Your task to perform on an android device: Open calendar and show me the fourth week of next month Image 0: 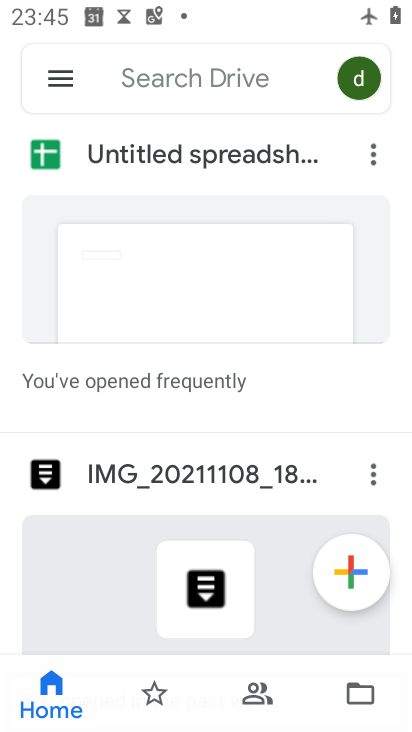
Step 0: press home button
Your task to perform on an android device: Open calendar and show me the fourth week of next month Image 1: 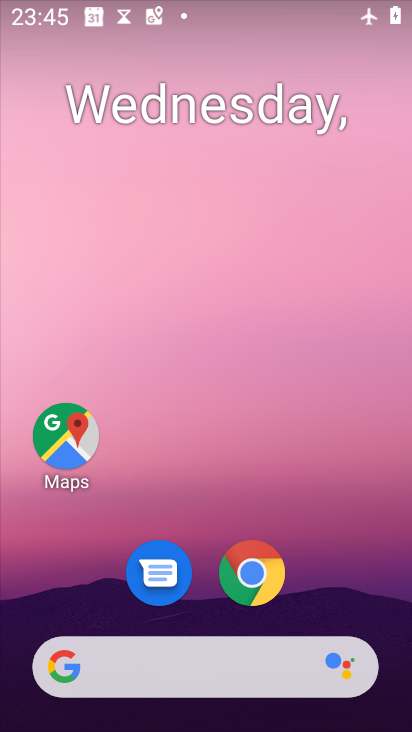
Step 1: drag from (315, 545) to (366, 247)
Your task to perform on an android device: Open calendar and show me the fourth week of next month Image 2: 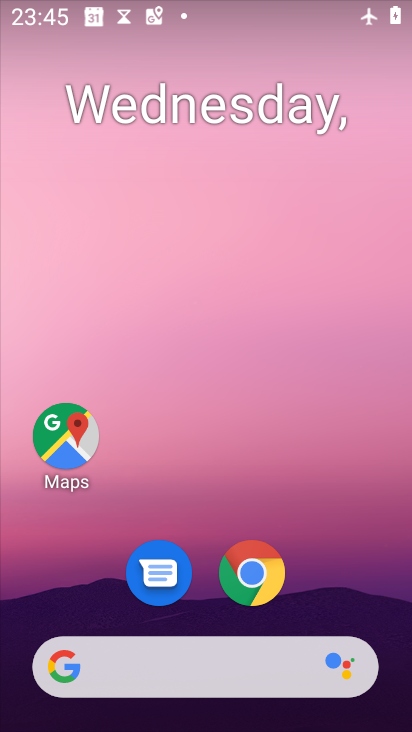
Step 2: drag from (309, 593) to (312, 235)
Your task to perform on an android device: Open calendar and show me the fourth week of next month Image 3: 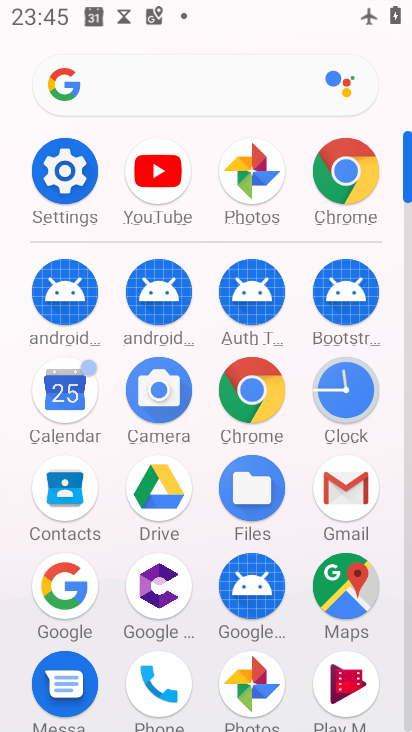
Step 3: click (51, 400)
Your task to perform on an android device: Open calendar and show me the fourth week of next month Image 4: 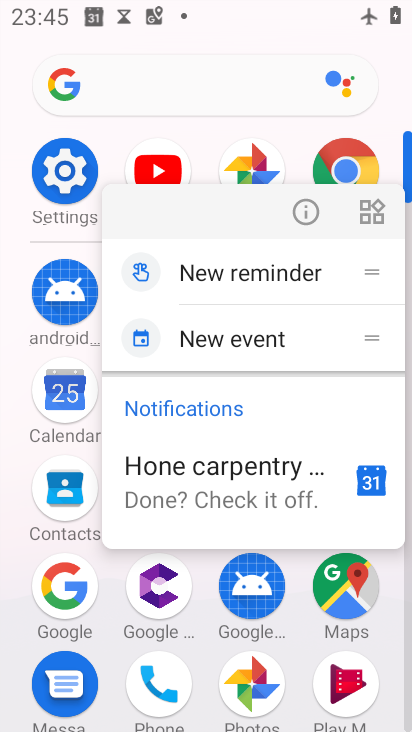
Step 4: click (64, 390)
Your task to perform on an android device: Open calendar and show me the fourth week of next month Image 5: 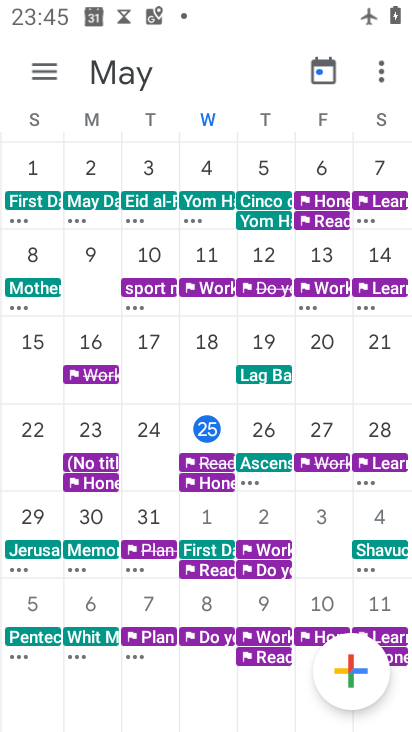
Step 5: task complete